Your task to perform on an android device: see tabs open on other devices in the chrome app Image 0: 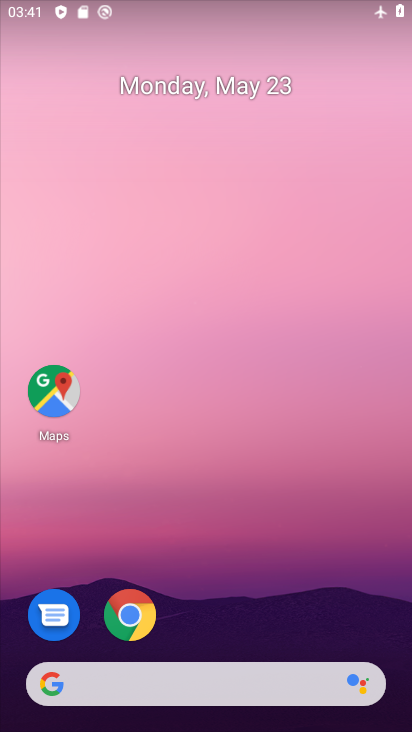
Step 0: drag from (209, 309) to (209, 192)
Your task to perform on an android device: see tabs open on other devices in the chrome app Image 1: 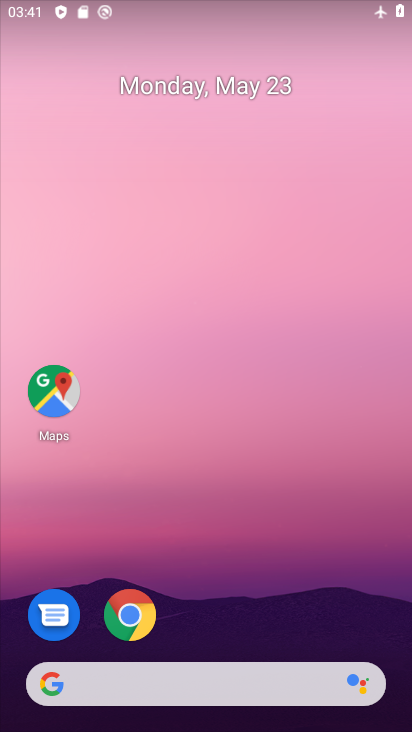
Step 1: drag from (240, 552) to (246, 225)
Your task to perform on an android device: see tabs open on other devices in the chrome app Image 2: 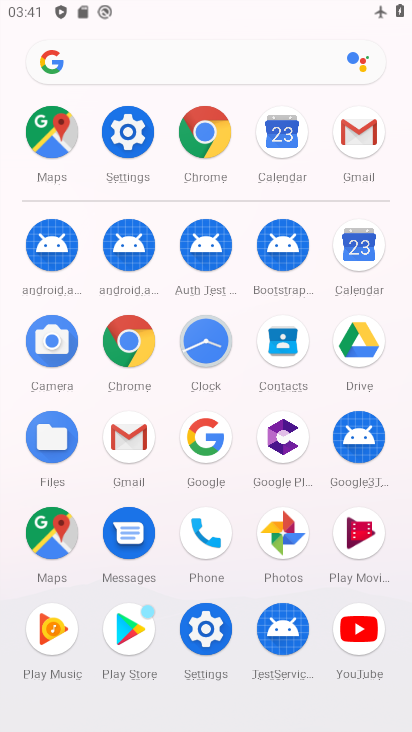
Step 2: click (197, 121)
Your task to perform on an android device: see tabs open on other devices in the chrome app Image 3: 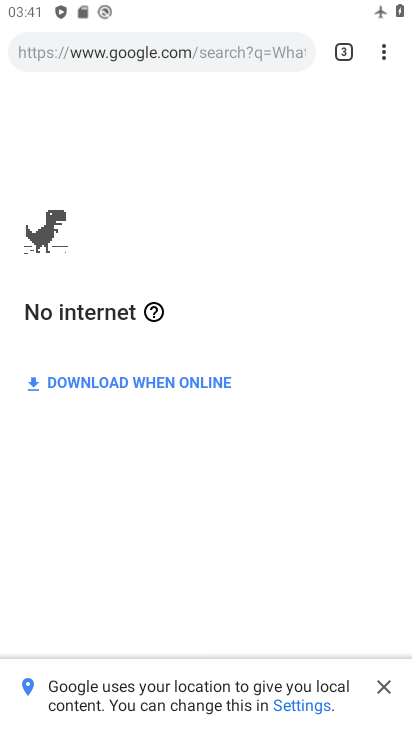
Step 3: click (383, 40)
Your task to perform on an android device: see tabs open on other devices in the chrome app Image 4: 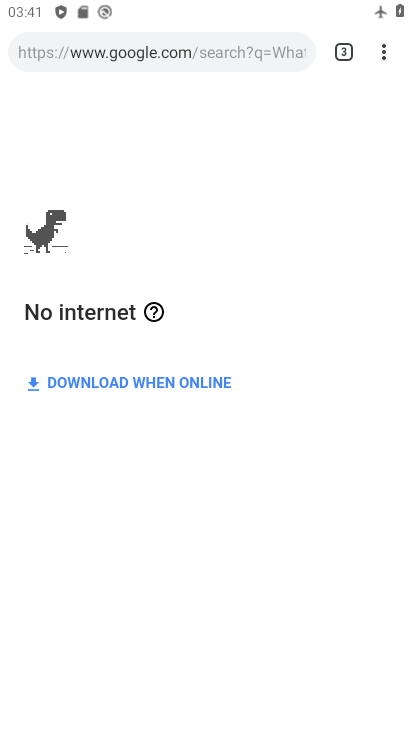
Step 4: click (380, 50)
Your task to perform on an android device: see tabs open on other devices in the chrome app Image 5: 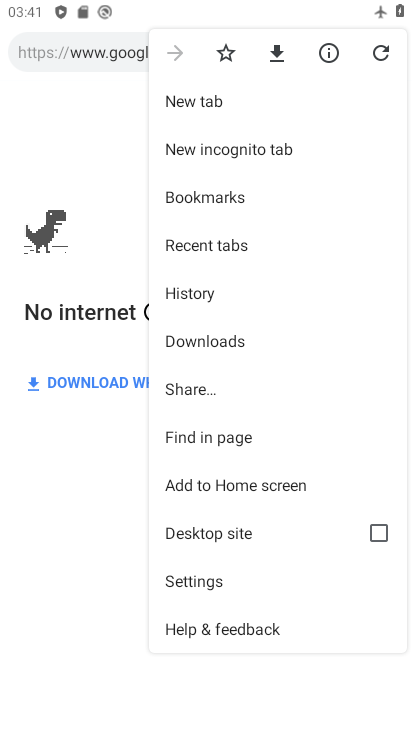
Step 5: click (209, 276)
Your task to perform on an android device: see tabs open on other devices in the chrome app Image 6: 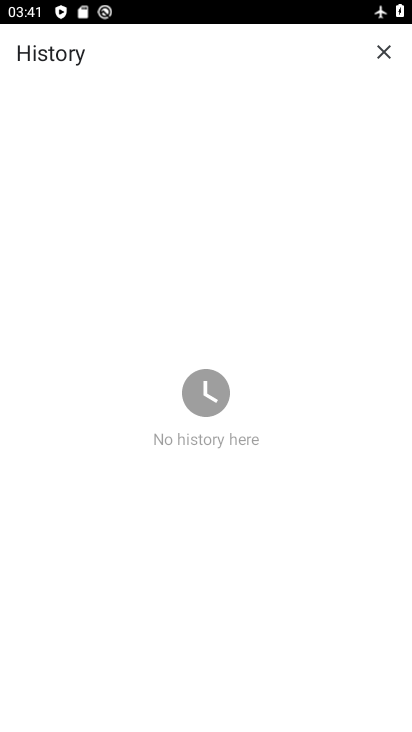
Step 6: task complete